Your task to perform on an android device: turn on notifications settings in the gmail app Image 0: 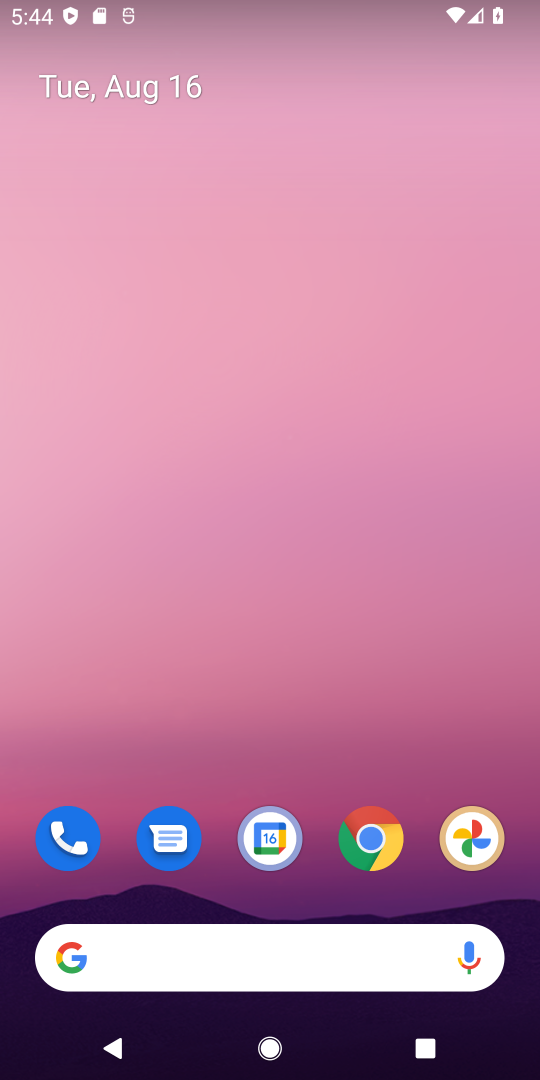
Step 0: drag from (273, 856) to (273, 135)
Your task to perform on an android device: turn on notifications settings in the gmail app Image 1: 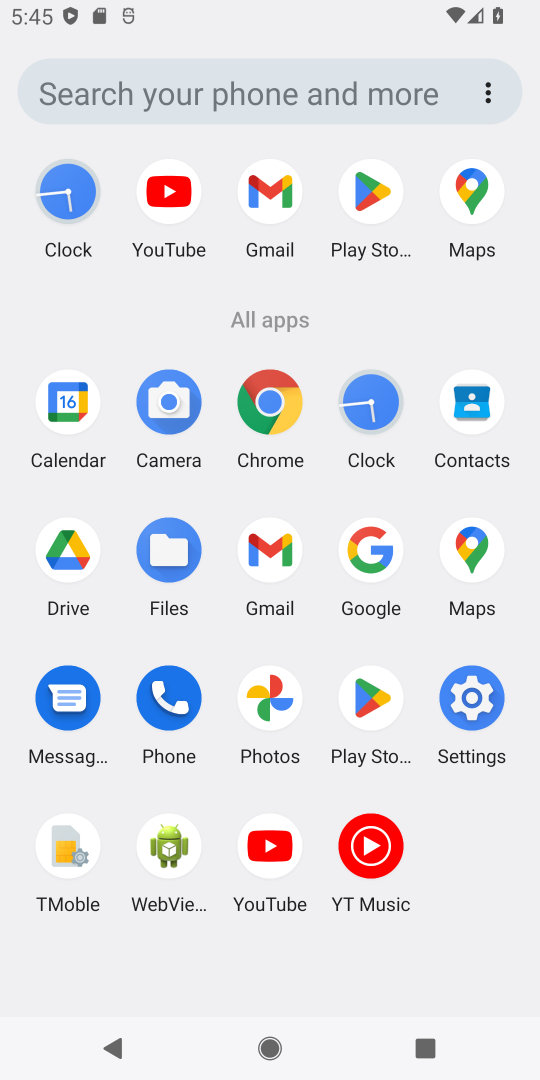
Step 1: click (263, 211)
Your task to perform on an android device: turn on notifications settings in the gmail app Image 2: 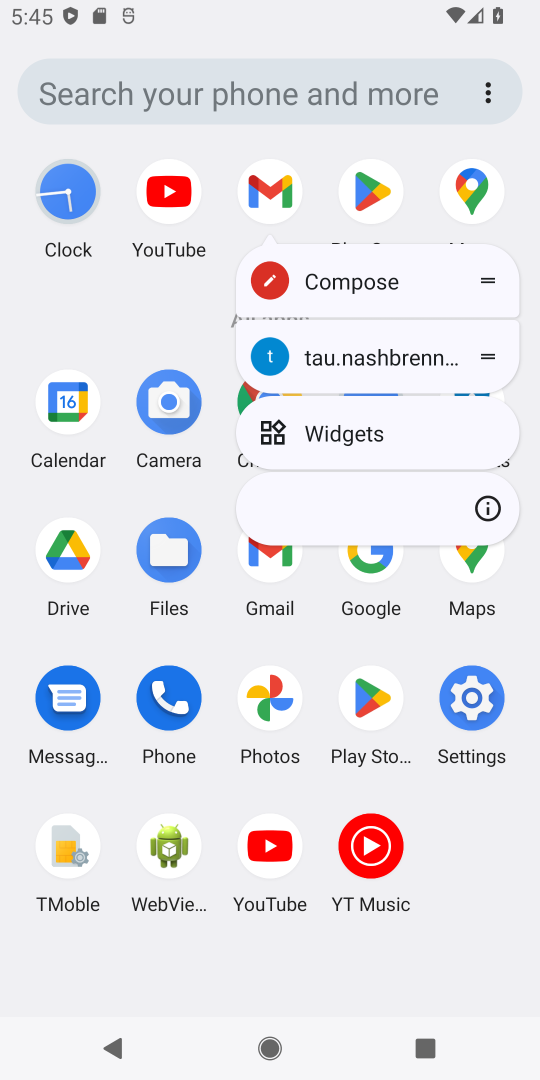
Step 2: click (479, 510)
Your task to perform on an android device: turn on notifications settings in the gmail app Image 3: 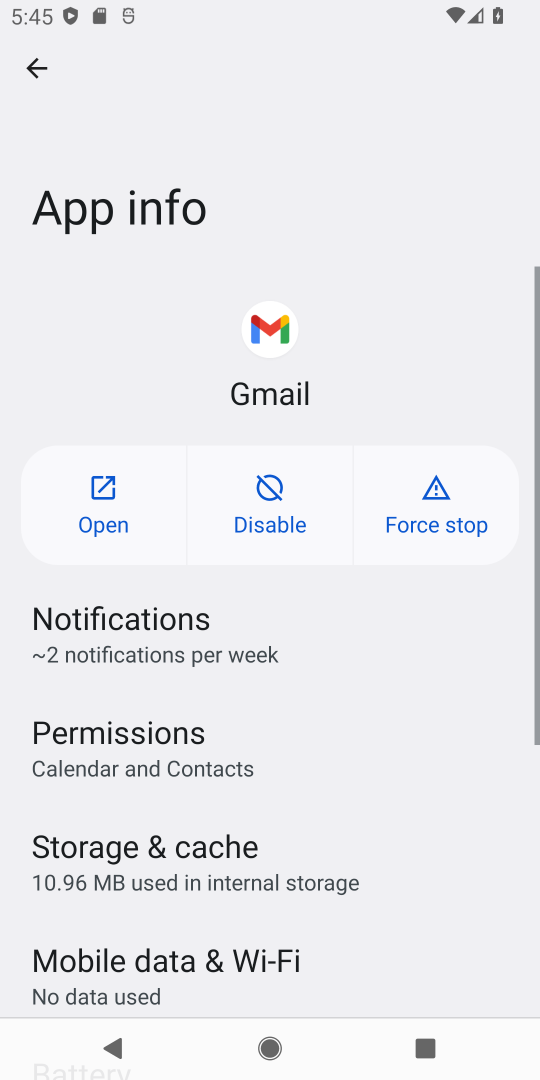
Step 3: click (178, 626)
Your task to perform on an android device: turn on notifications settings in the gmail app Image 4: 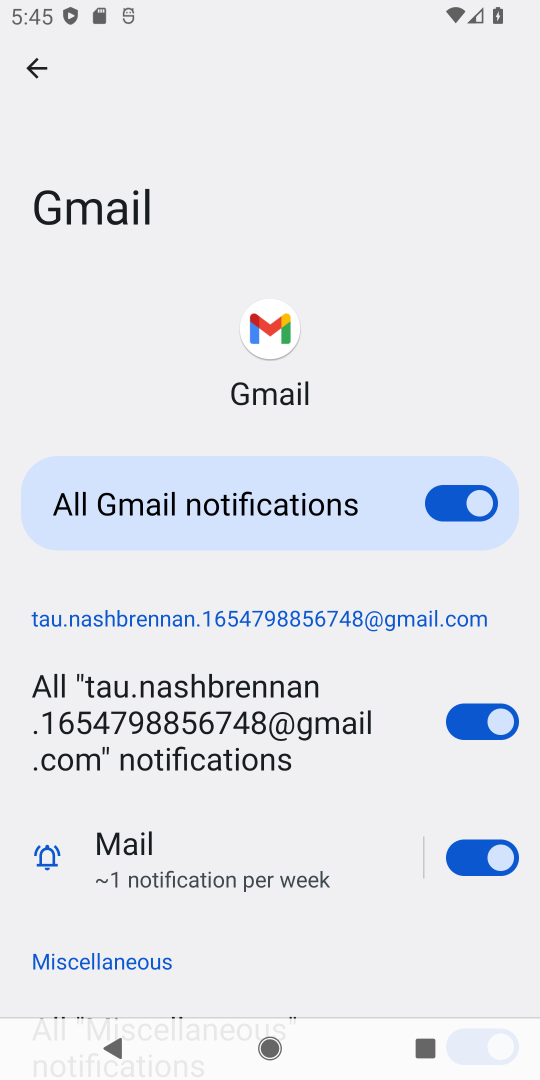
Step 4: task complete